Your task to perform on an android device: turn on data saver in the chrome app Image 0: 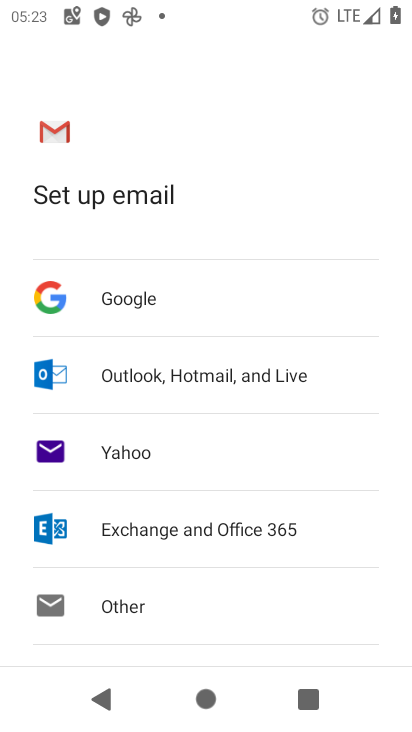
Step 0: press home button
Your task to perform on an android device: turn on data saver in the chrome app Image 1: 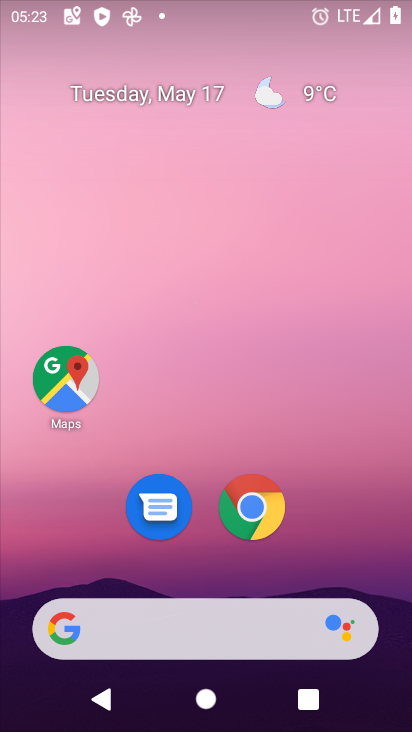
Step 1: click (243, 523)
Your task to perform on an android device: turn on data saver in the chrome app Image 2: 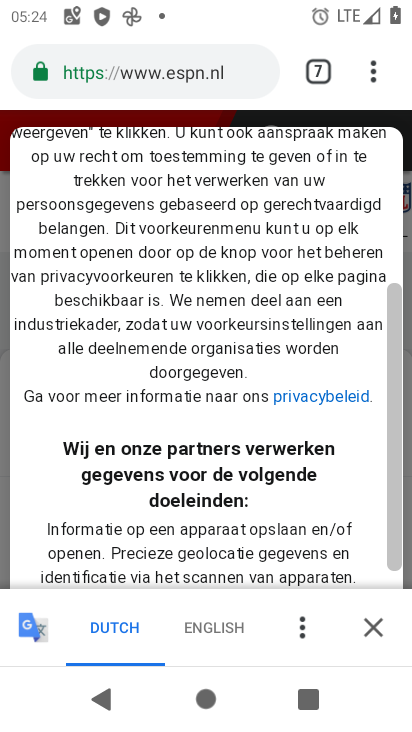
Step 2: click (367, 68)
Your task to perform on an android device: turn on data saver in the chrome app Image 3: 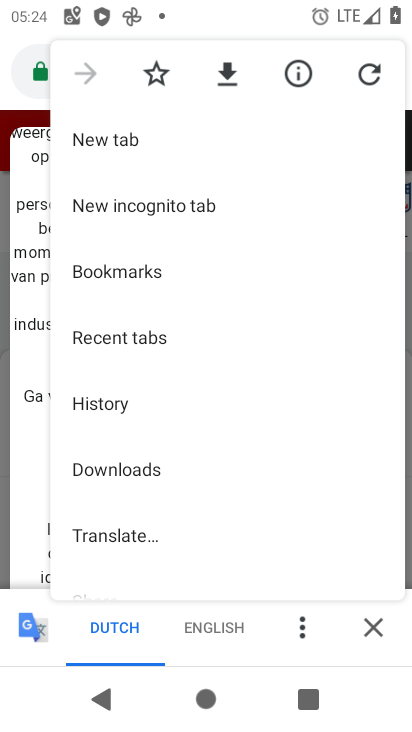
Step 3: drag from (171, 475) to (177, 185)
Your task to perform on an android device: turn on data saver in the chrome app Image 4: 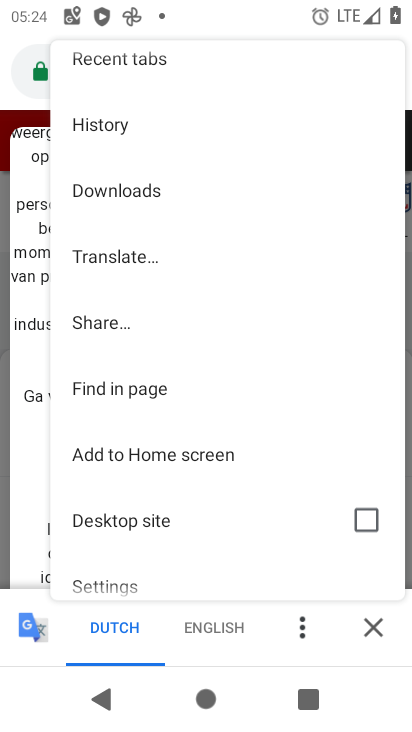
Step 4: drag from (207, 500) to (206, 200)
Your task to perform on an android device: turn on data saver in the chrome app Image 5: 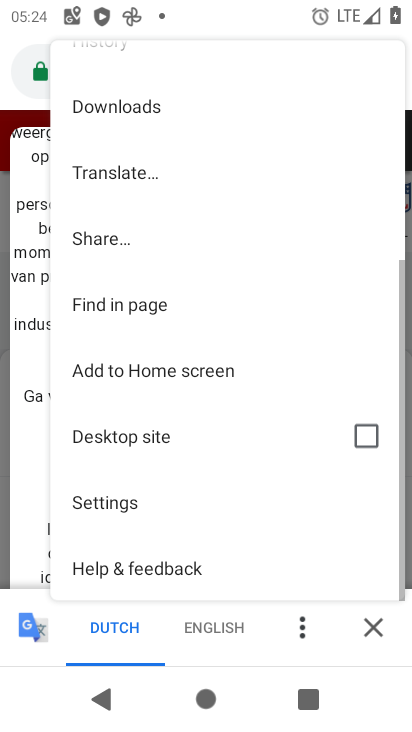
Step 5: click (153, 504)
Your task to perform on an android device: turn on data saver in the chrome app Image 6: 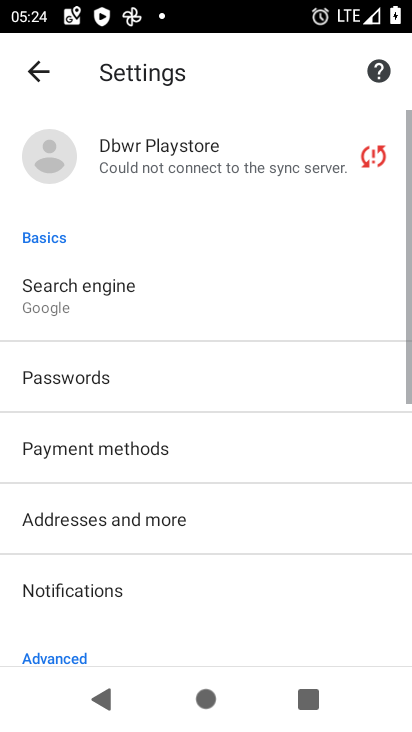
Step 6: drag from (240, 506) to (199, 188)
Your task to perform on an android device: turn on data saver in the chrome app Image 7: 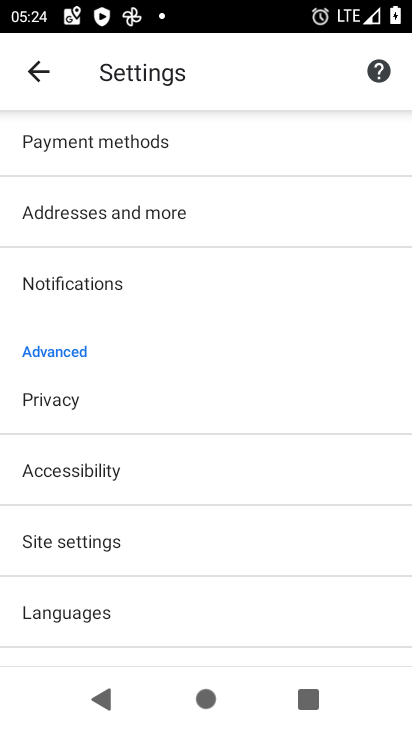
Step 7: click (177, 542)
Your task to perform on an android device: turn on data saver in the chrome app Image 8: 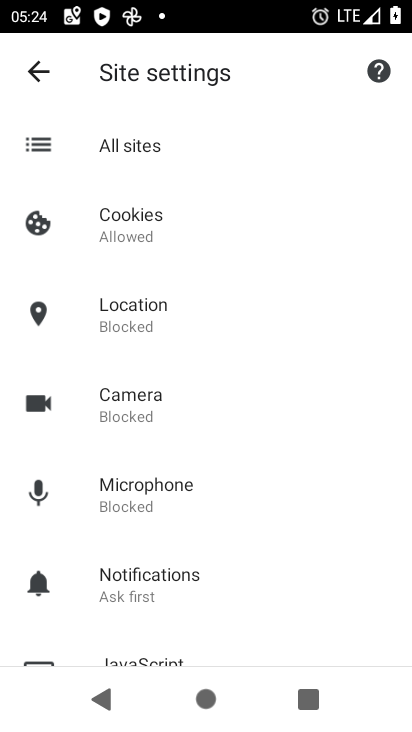
Step 8: drag from (230, 578) to (230, 253)
Your task to perform on an android device: turn on data saver in the chrome app Image 9: 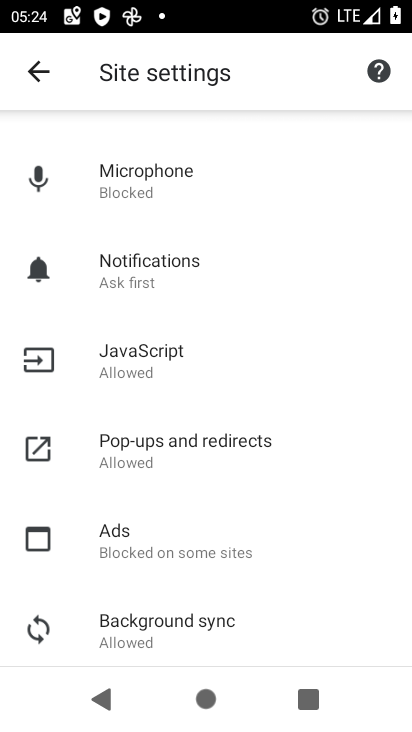
Step 9: drag from (223, 235) to (179, 579)
Your task to perform on an android device: turn on data saver in the chrome app Image 10: 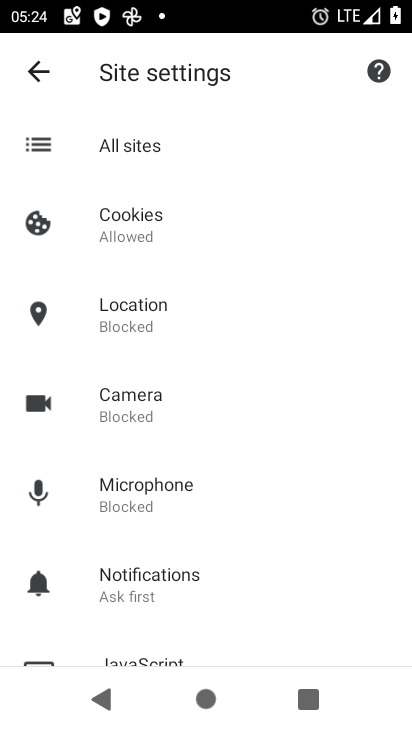
Step 10: drag from (247, 566) to (223, 221)
Your task to perform on an android device: turn on data saver in the chrome app Image 11: 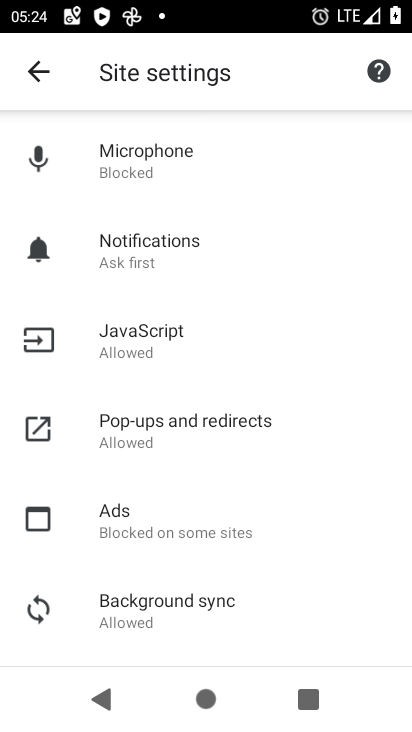
Step 11: click (39, 84)
Your task to perform on an android device: turn on data saver in the chrome app Image 12: 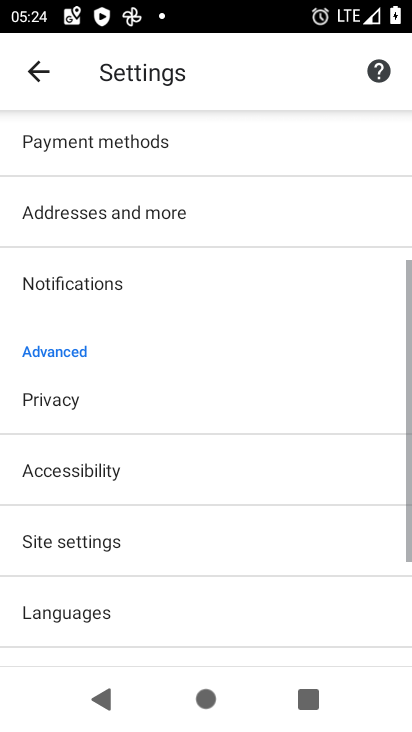
Step 12: drag from (210, 565) to (208, 237)
Your task to perform on an android device: turn on data saver in the chrome app Image 13: 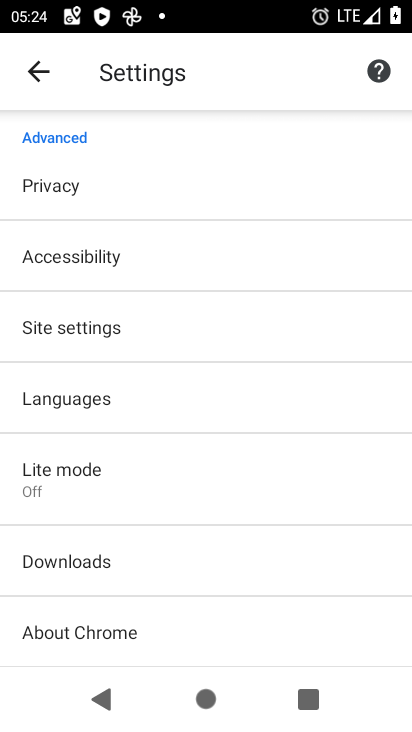
Step 13: click (130, 465)
Your task to perform on an android device: turn on data saver in the chrome app Image 14: 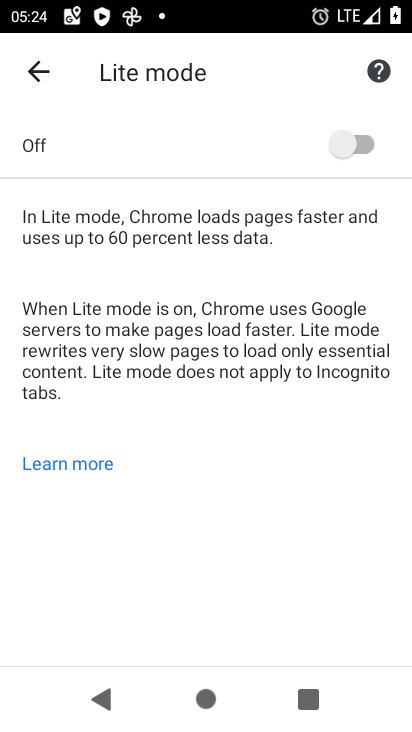
Step 14: click (337, 146)
Your task to perform on an android device: turn on data saver in the chrome app Image 15: 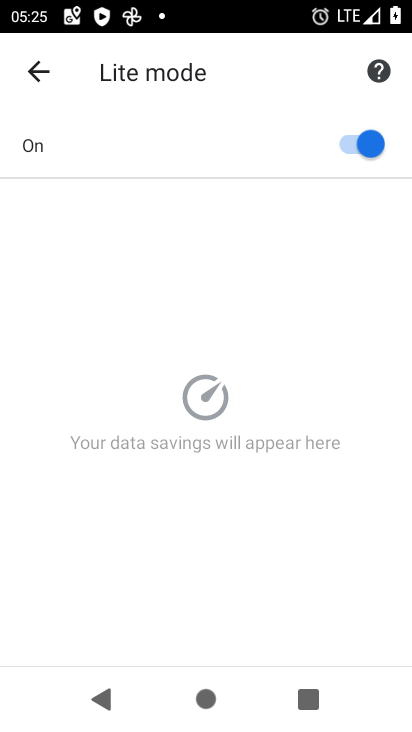
Step 15: task complete